Your task to perform on an android device: Open Google Image 0: 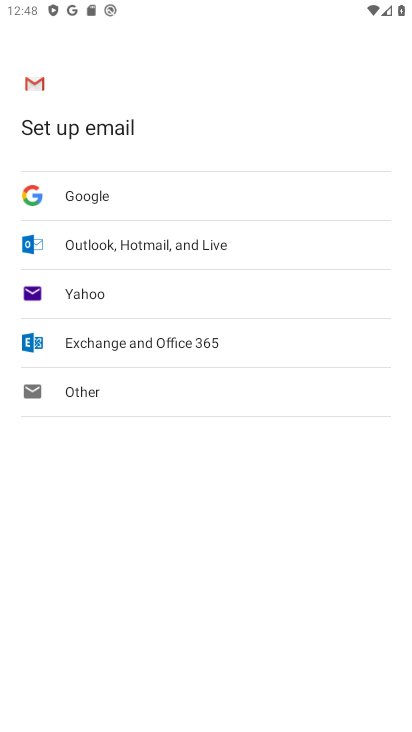
Step 0: press home button
Your task to perform on an android device: Open Google Image 1: 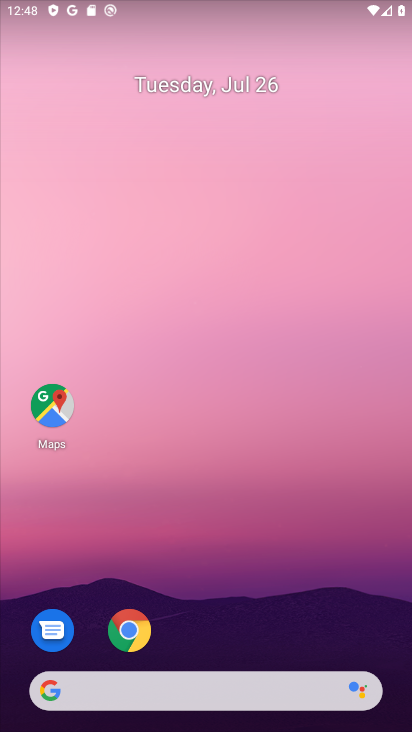
Step 1: drag from (200, 675) to (307, 8)
Your task to perform on an android device: Open Google Image 2: 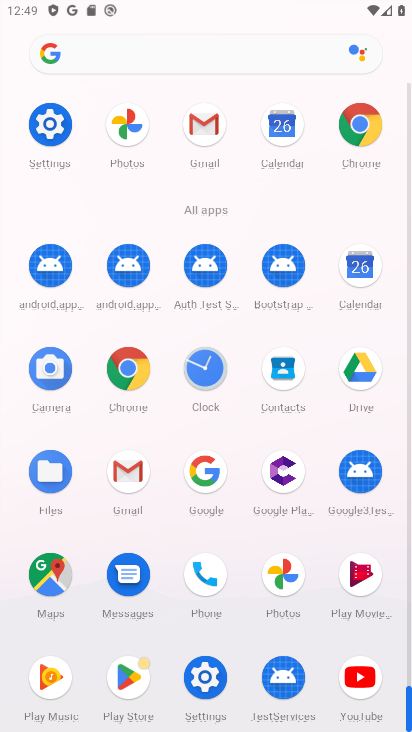
Step 2: click (211, 473)
Your task to perform on an android device: Open Google Image 3: 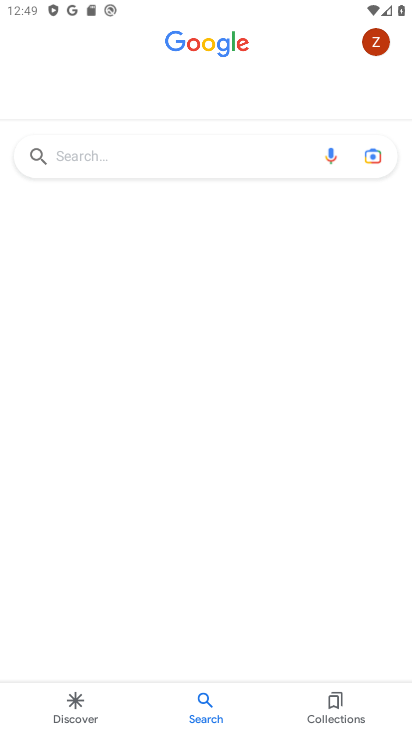
Step 3: task complete